Your task to perform on an android device: remove spam from my inbox in the gmail app Image 0: 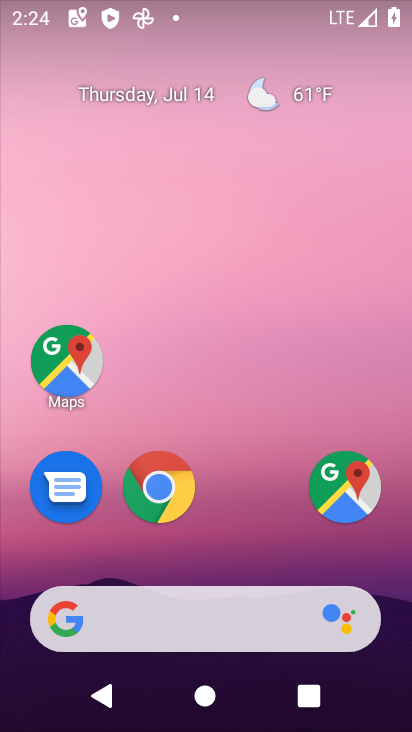
Step 0: drag from (276, 541) to (277, 203)
Your task to perform on an android device: remove spam from my inbox in the gmail app Image 1: 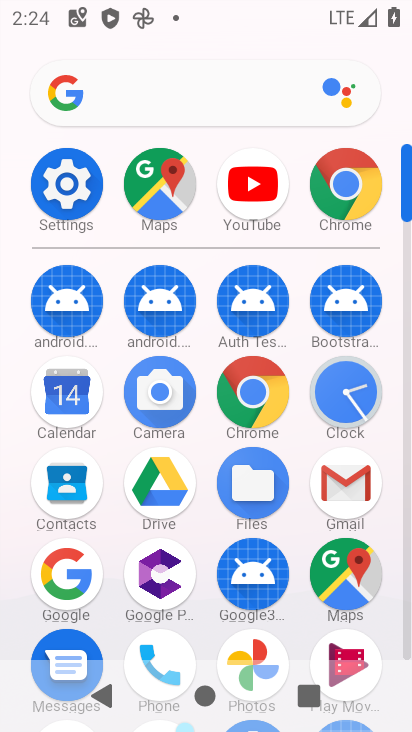
Step 1: click (357, 480)
Your task to perform on an android device: remove spam from my inbox in the gmail app Image 2: 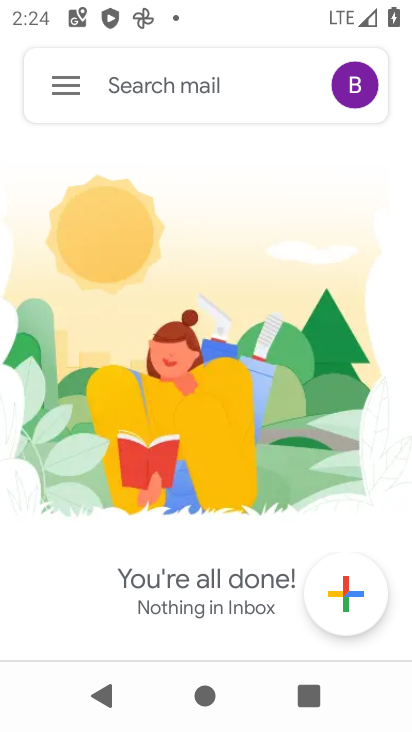
Step 2: click (69, 90)
Your task to perform on an android device: remove spam from my inbox in the gmail app Image 3: 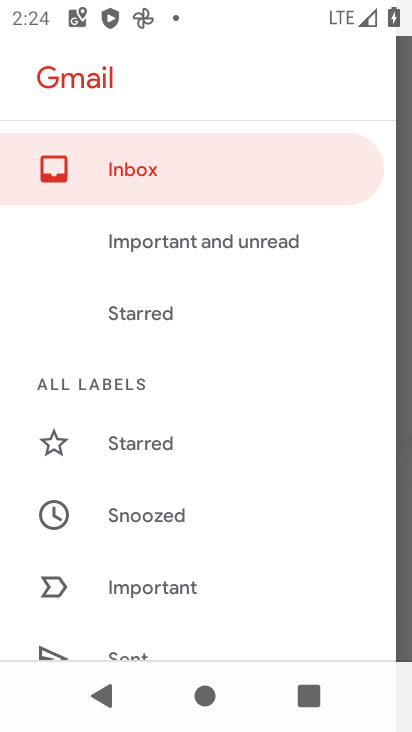
Step 3: drag from (309, 474) to (313, 380)
Your task to perform on an android device: remove spam from my inbox in the gmail app Image 4: 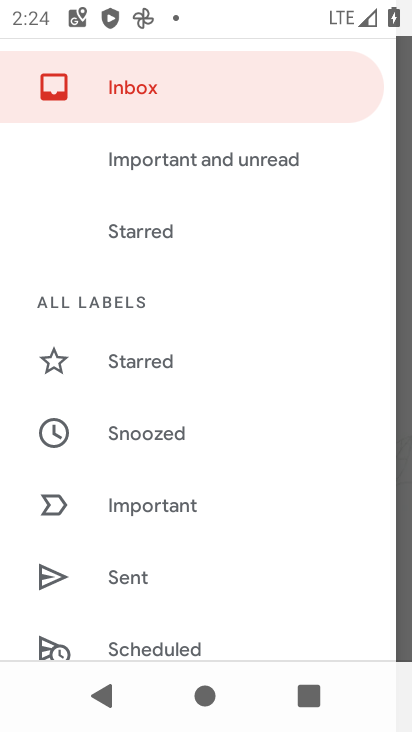
Step 4: drag from (298, 512) to (300, 432)
Your task to perform on an android device: remove spam from my inbox in the gmail app Image 5: 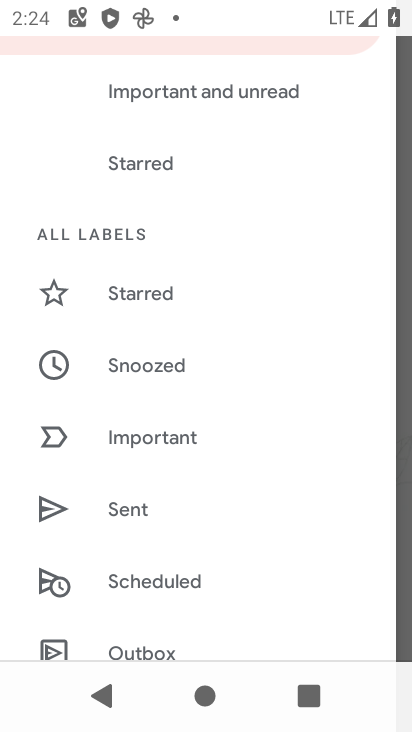
Step 5: drag from (305, 547) to (307, 443)
Your task to perform on an android device: remove spam from my inbox in the gmail app Image 6: 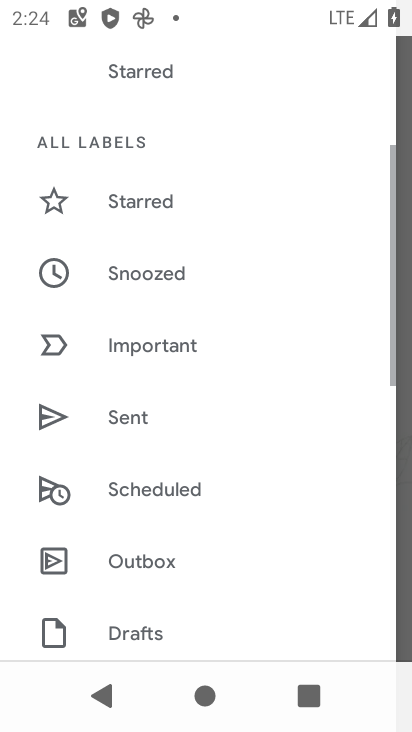
Step 6: drag from (288, 521) to (289, 441)
Your task to perform on an android device: remove spam from my inbox in the gmail app Image 7: 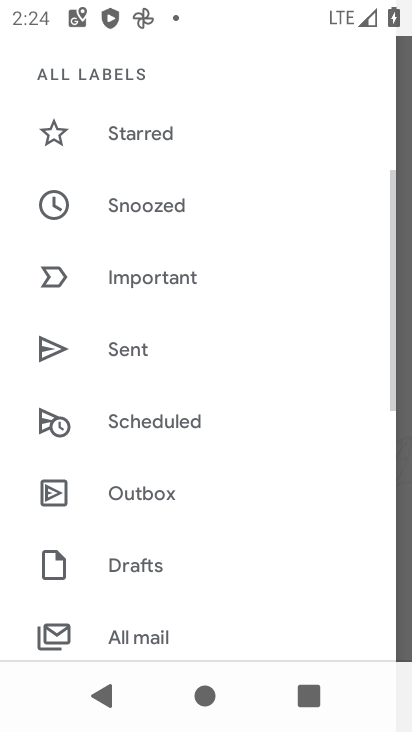
Step 7: drag from (295, 503) to (302, 419)
Your task to perform on an android device: remove spam from my inbox in the gmail app Image 8: 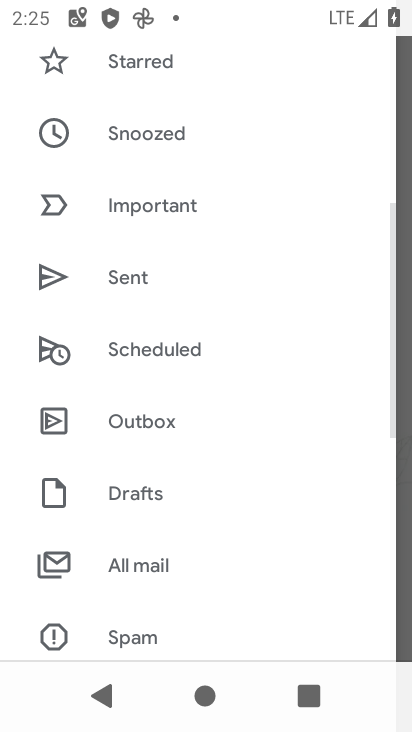
Step 8: drag from (298, 531) to (307, 442)
Your task to perform on an android device: remove spam from my inbox in the gmail app Image 9: 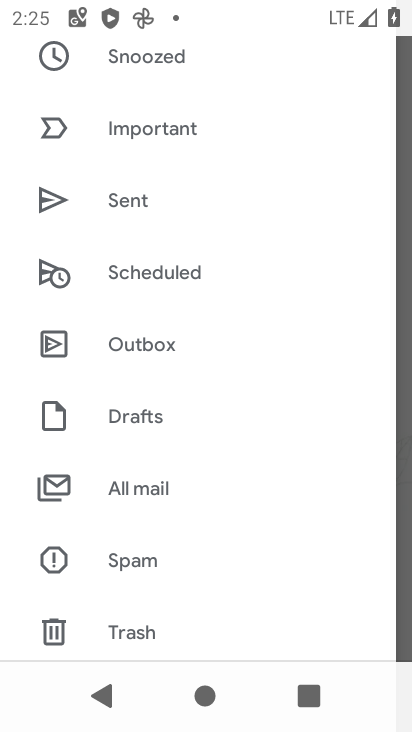
Step 9: drag from (301, 564) to (301, 445)
Your task to perform on an android device: remove spam from my inbox in the gmail app Image 10: 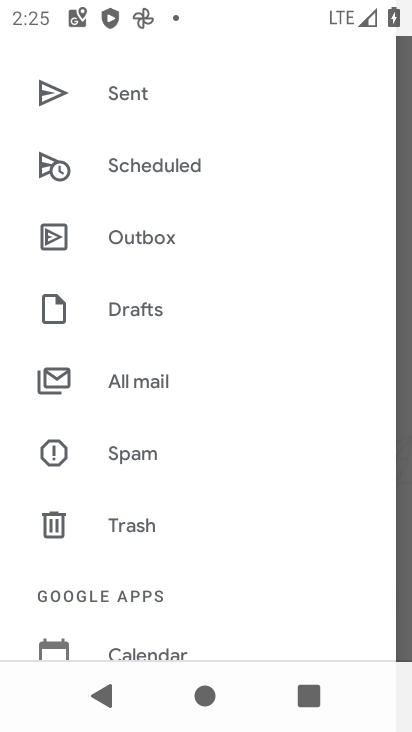
Step 10: click (196, 463)
Your task to perform on an android device: remove spam from my inbox in the gmail app Image 11: 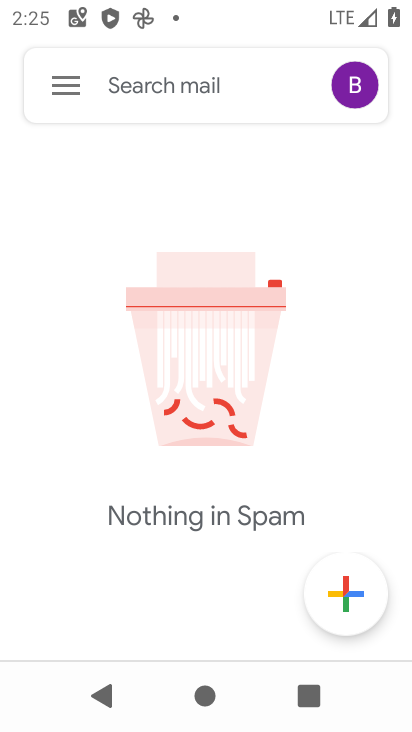
Step 11: task complete